Your task to perform on an android device: turn on data saver in the chrome app Image 0: 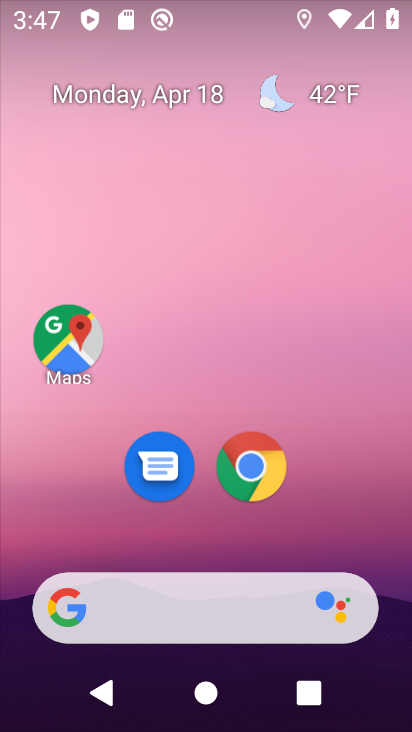
Step 0: click (251, 460)
Your task to perform on an android device: turn on data saver in the chrome app Image 1: 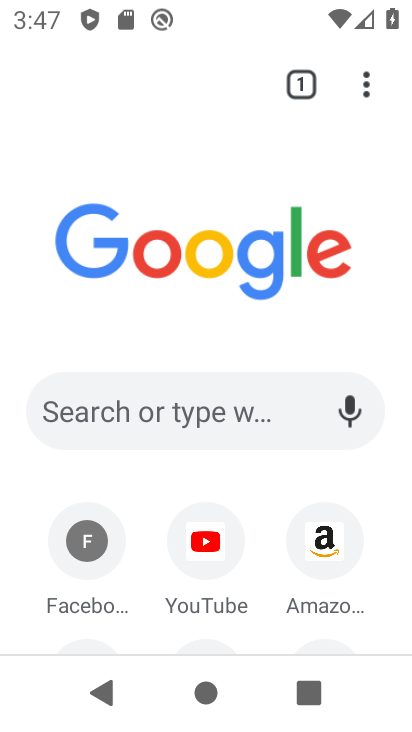
Step 1: click (361, 79)
Your task to perform on an android device: turn on data saver in the chrome app Image 2: 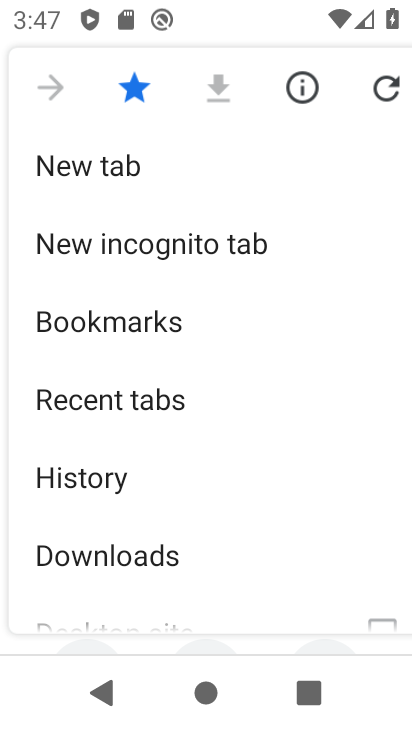
Step 2: drag from (222, 577) to (266, 265)
Your task to perform on an android device: turn on data saver in the chrome app Image 3: 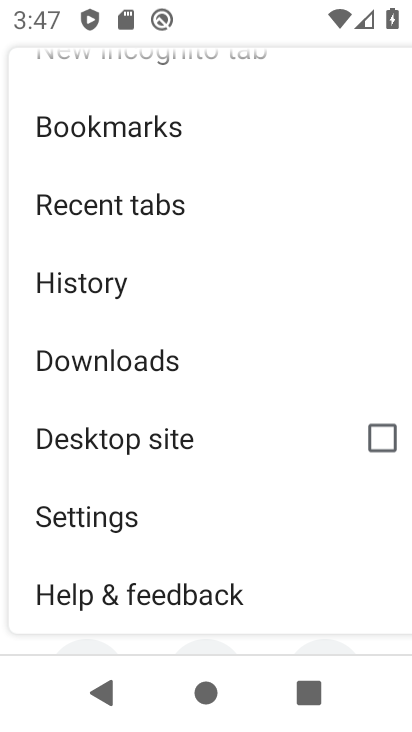
Step 3: click (81, 507)
Your task to perform on an android device: turn on data saver in the chrome app Image 4: 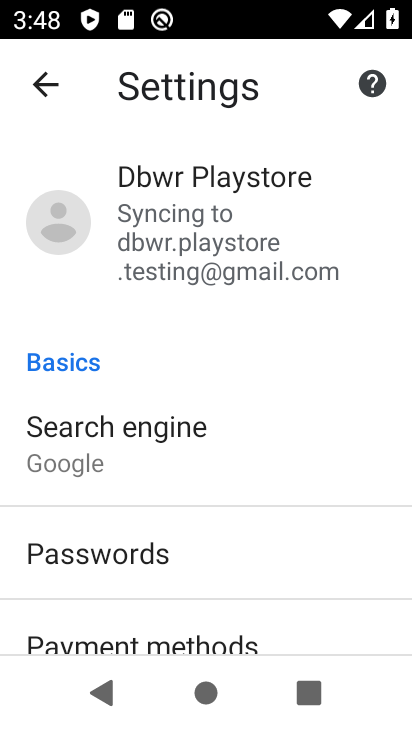
Step 4: drag from (301, 610) to (305, 307)
Your task to perform on an android device: turn on data saver in the chrome app Image 5: 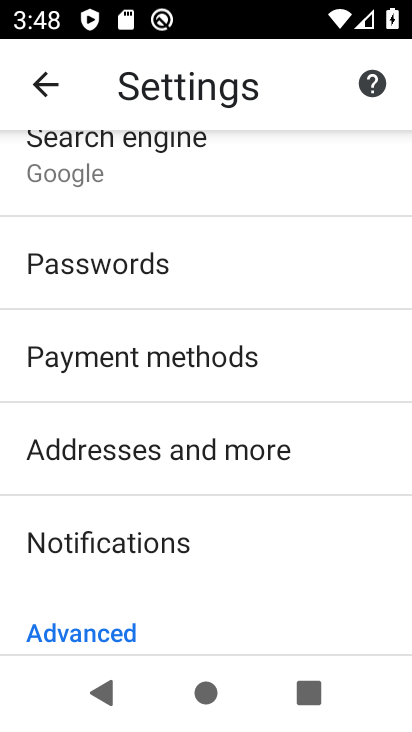
Step 5: drag from (299, 555) to (360, 268)
Your task to perform on an android device: turn on data saver in the chrome app Image 6: 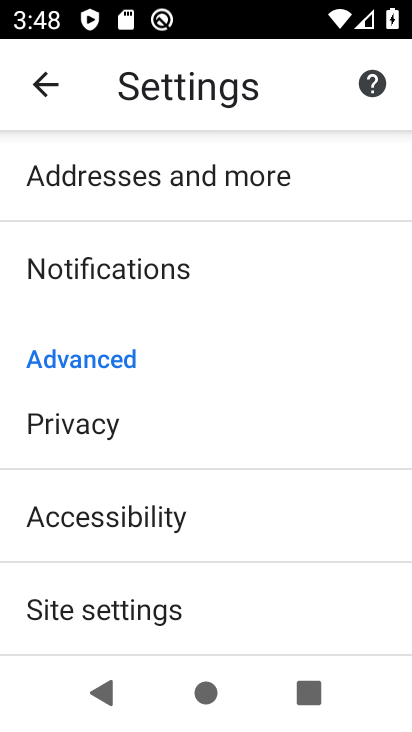
Step 6: drag from (213, 591) to (247, 285)
Your task to perform on an android device: turn on data saver in the chrome app Image 7: 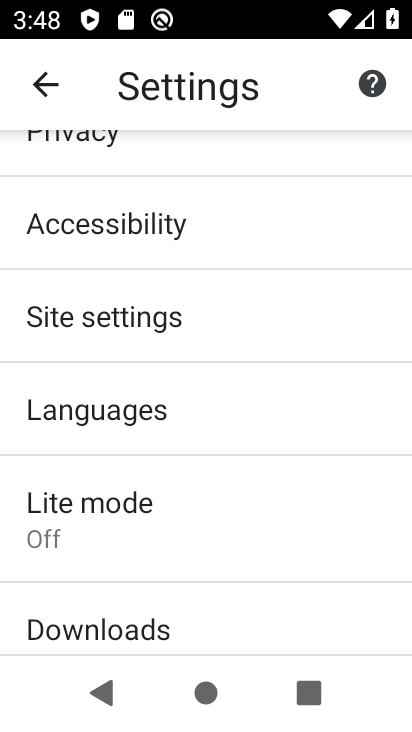
Step 7: click (73, 513)
Your task to perform on an android device: turn on data saver in the chrome app Image 8: 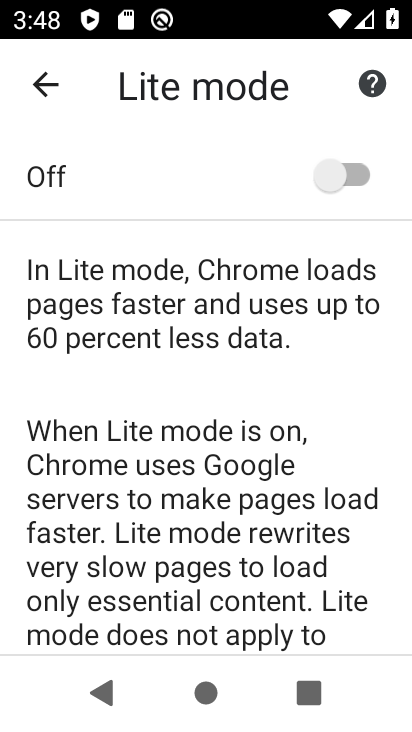
Step 8: click (368, 167)
Your task to perform on an android device: turn on data saver in the chrome app Image 9: 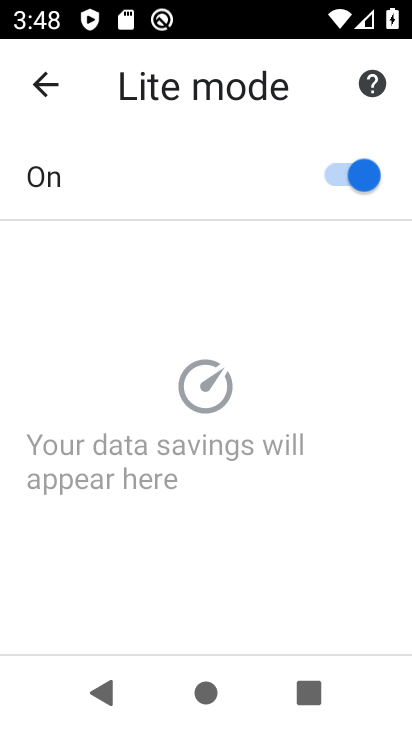
Step 9: task complete